Your task to perform on an android device: What is the recent news? Image 0: 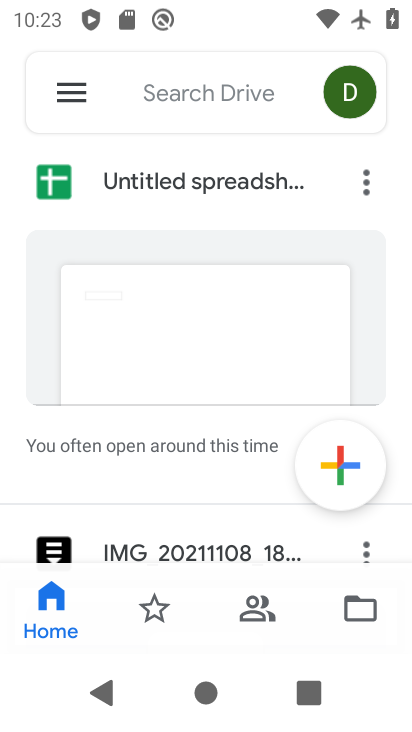
Step 0: press home button
Your task to perform on an android device: What is the recent news? Image 1: 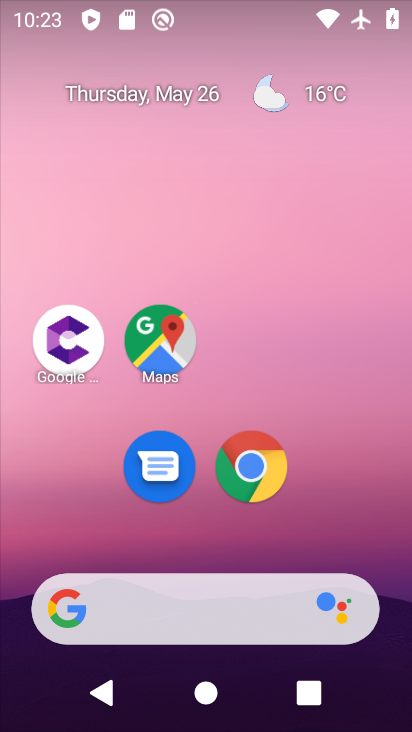
Step 1: drag from (10, 212) to (280, 355)
Your task to perform on an android device: What is the recent news? Image 2: 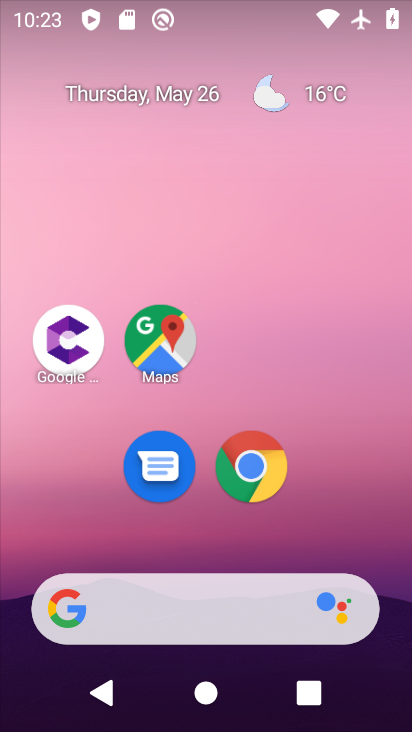
Step 2: drag from (15, 200) to (298, 200)
Your task to perform on an android device: What is the recent news? Image 3: 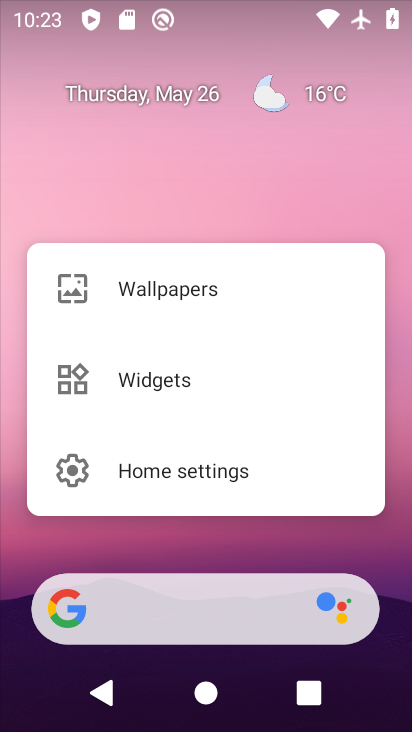
Step 3: click (298, 200)
Your task to perform on an android device: What is the recent news? Image 4: 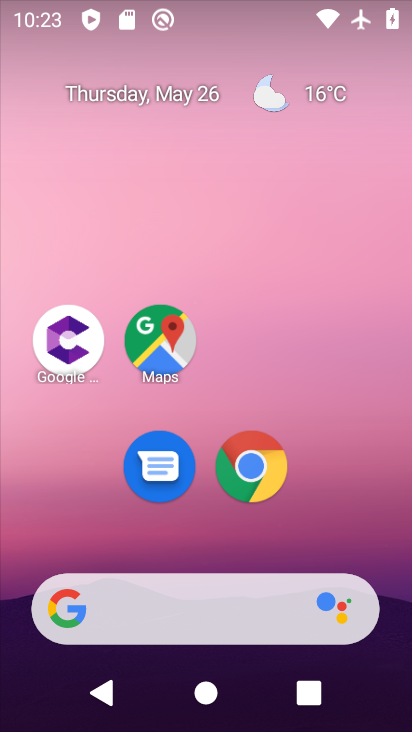
Step 4: click (3, 173)
Your task to perform on an android device: What is the recent news? Image 5: 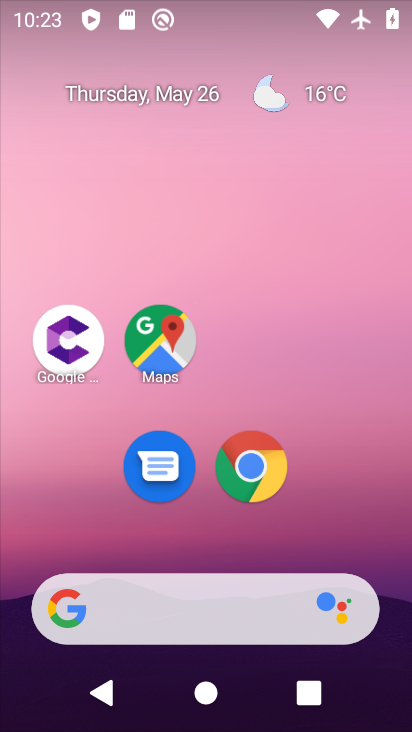
Step 5: task complete